Your task to perform on an android device: Open display settings Image 0: 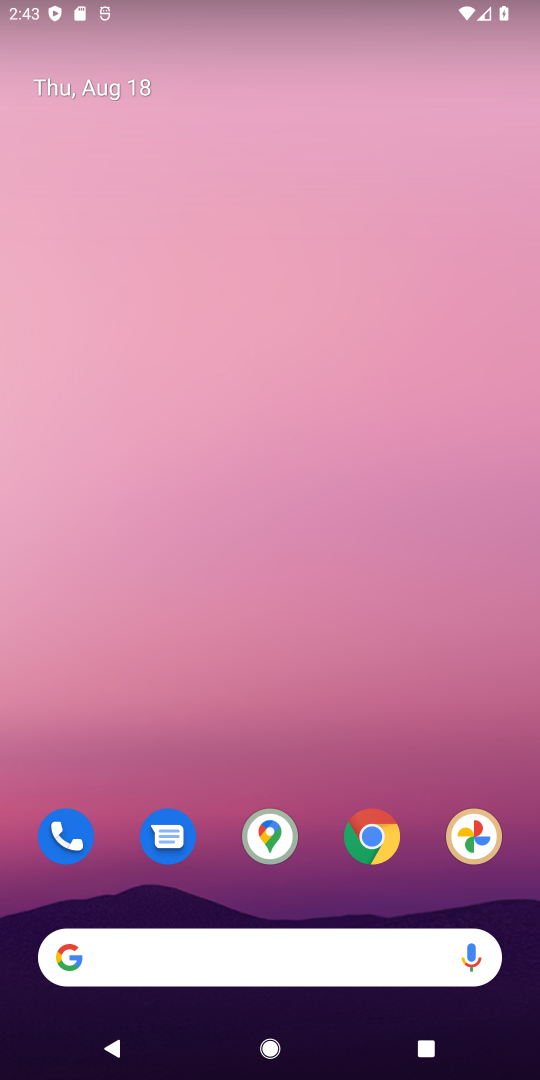
Step 0: drag from (232, 921) to (291, 248)
Your task to perform on an android device: Open display settings Image 1: 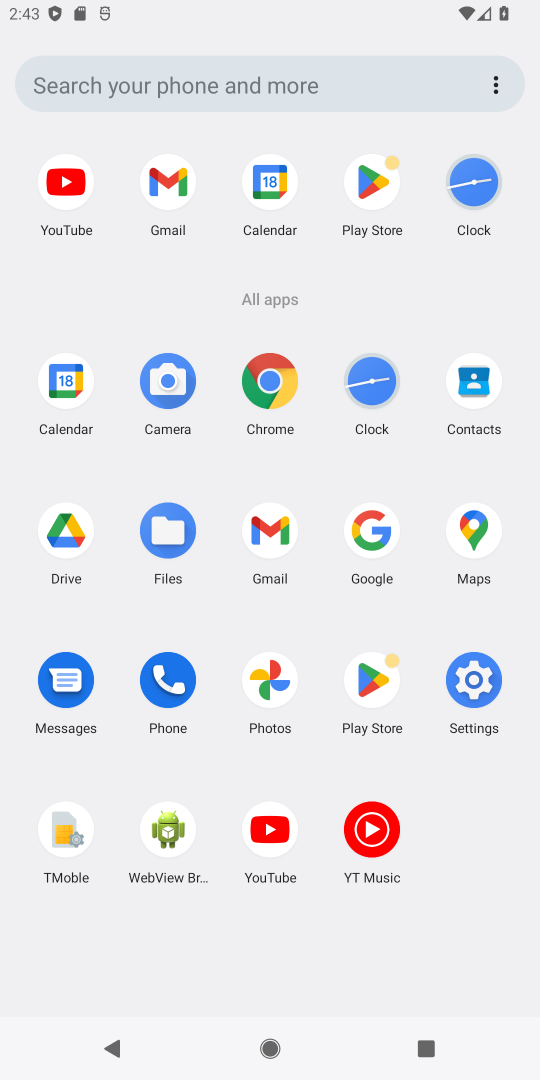
Step 1: click (468, 674)
Your task to perform on an android device: Open display settings Image 2: 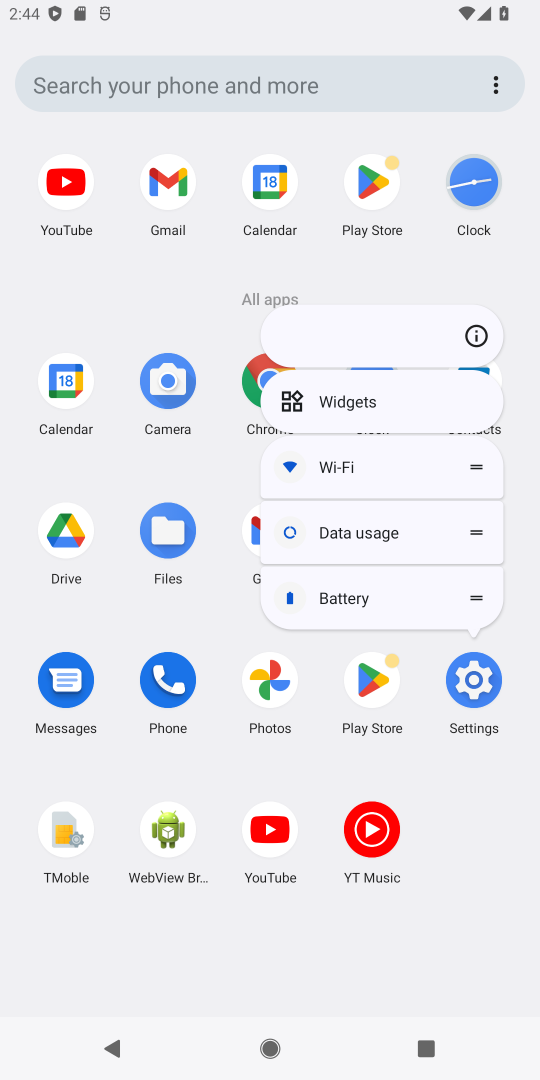
Step 2: click (454, 660)
Your task to perform on an android device: Open display settings Image 3: 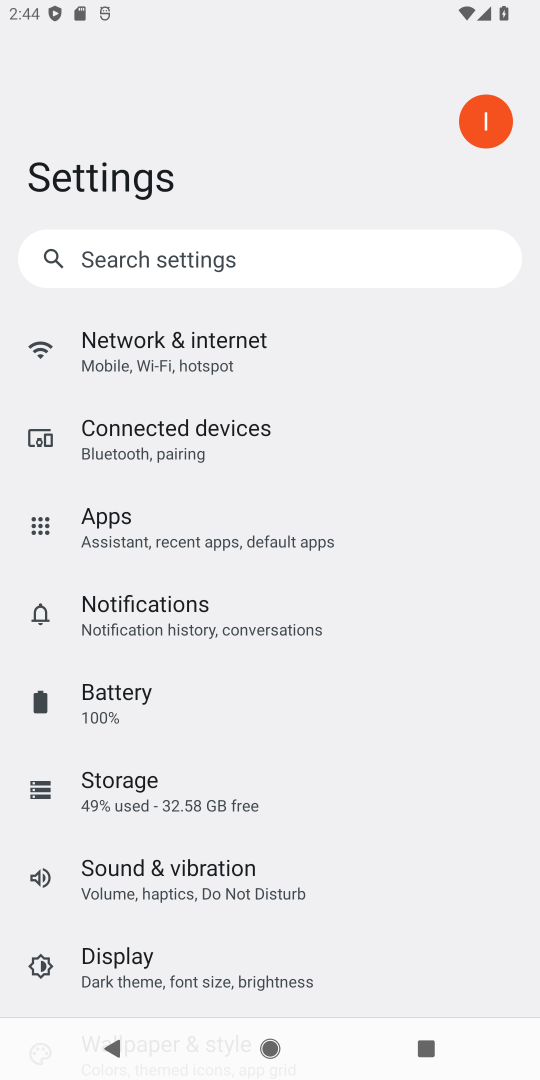
Step 3: click (205, 975)
Your task to perform on an android device: Open display settings Image 4: 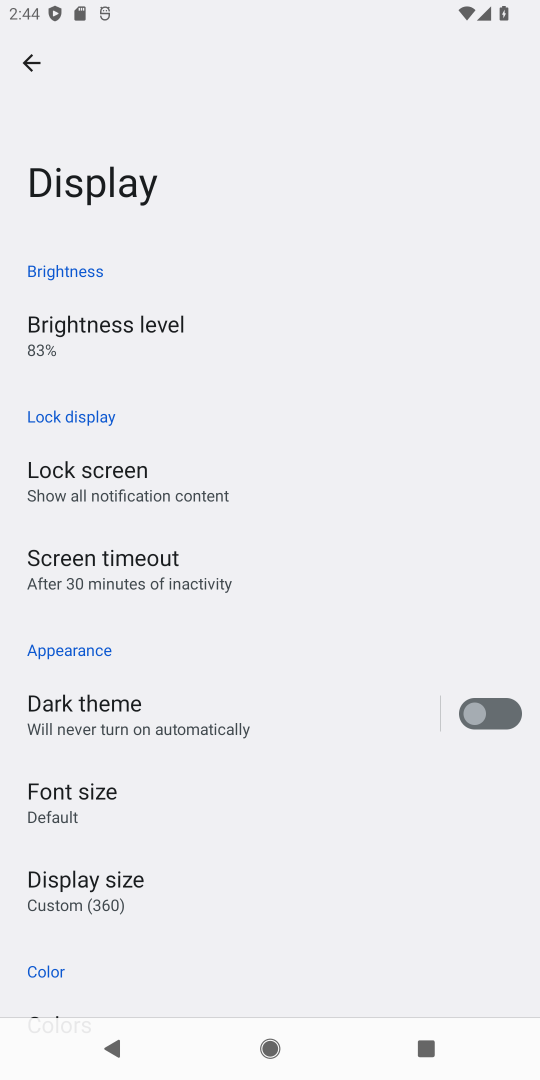
Step 4: task complete